Your task to perform on an android device: add a contact in the contacts app Image 0: 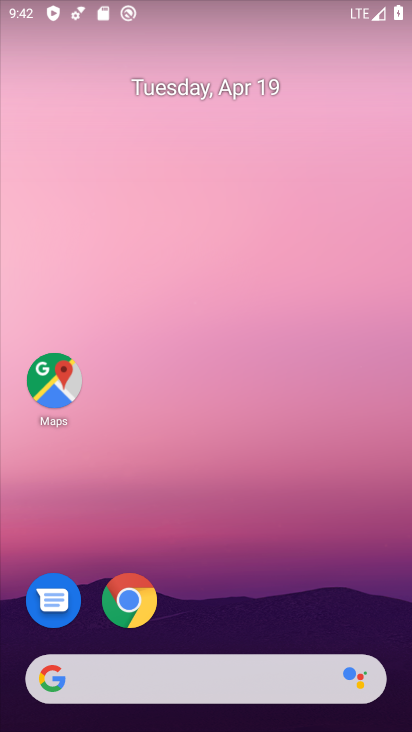
Step 0: drag from (244, 246) to (203, 26)
Your task to perform on an android device: add a contact in the contacts app Image 1: 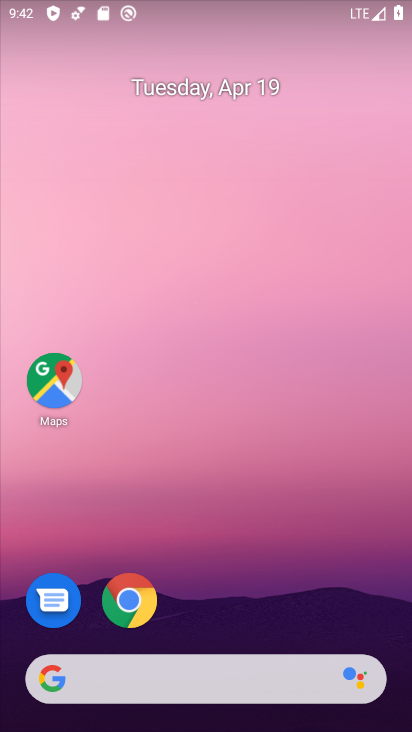
Step 1: drag from (375, 343) to (303, 64)
Your task to perform on an android device: add a contact in the contacts app Image 2: 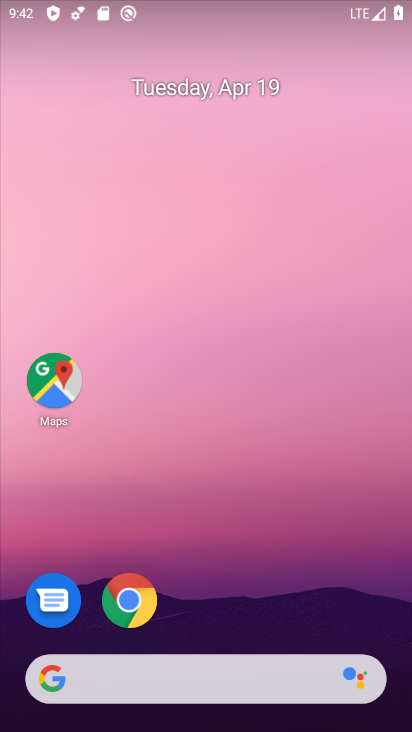
Step 2: drag from (282, 536) to (306, 81)
Your task to perform on an android device: add a contact in the contacts app Image 3: 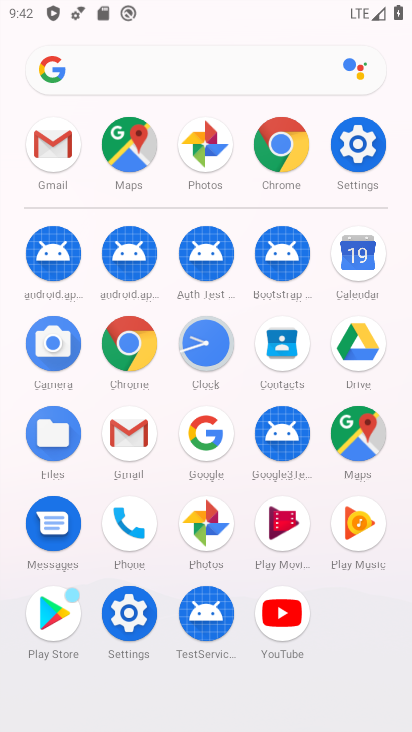
Step 3: click (287, 343)
Your task to perform on an android device: add a contact in the contacts app Image 4: 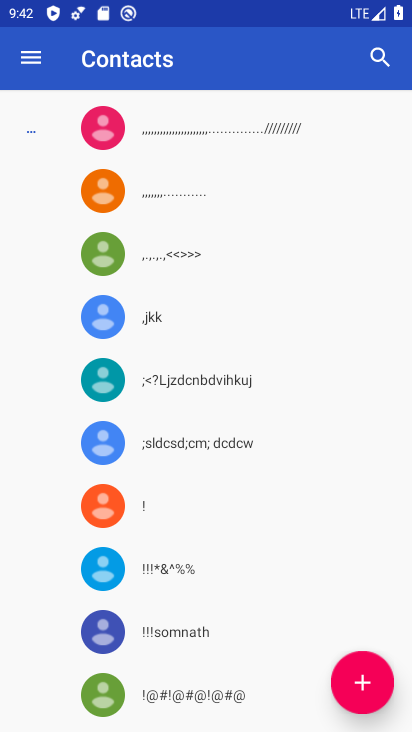
Step 4: click (366, 688)
Your task to perform on an android device: add a contact in the contacts app Image 5: 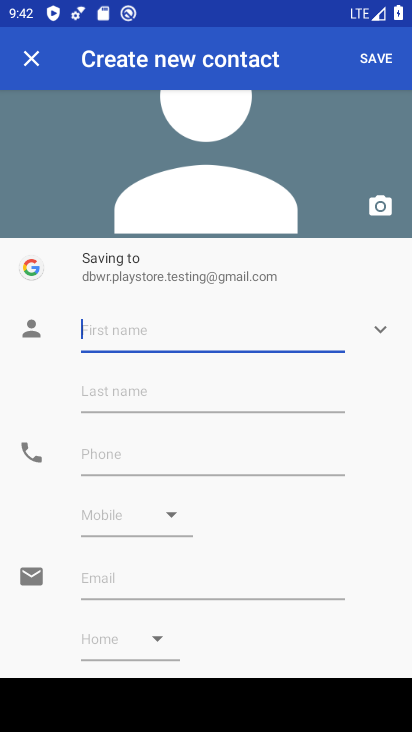
Step 5: click (152, 340)
Your task to perform on an android device: add a contact in the contacts app Image 6: 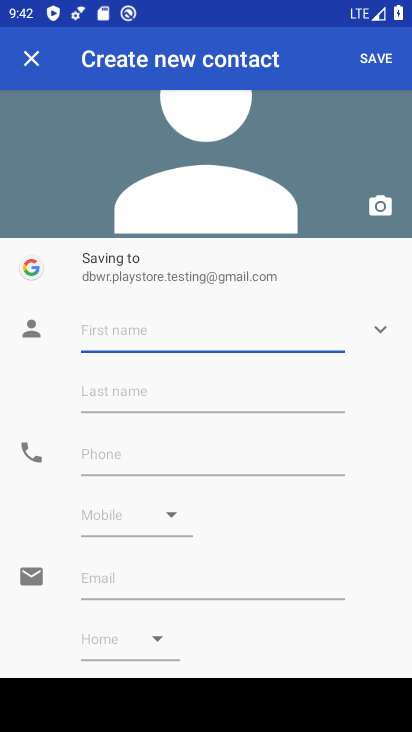
Step 6: type "jhgjhgjhg"
Your task to perform on an android device: add a contact in the contacts app Image 7: 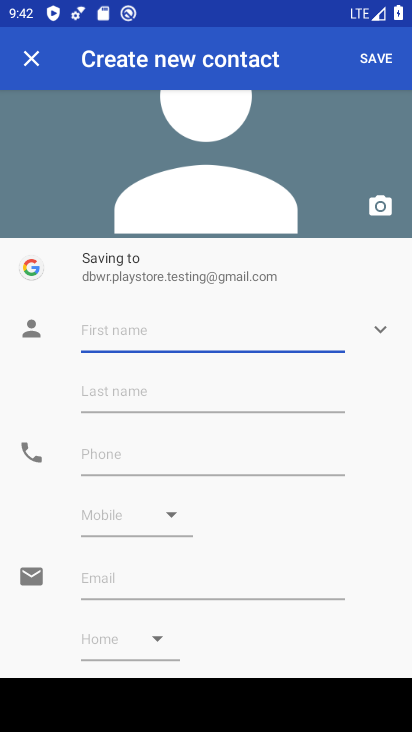
Step 7: click (256, 460)
Your task to perform on an android device: add a contact in the contacts app Image 8: 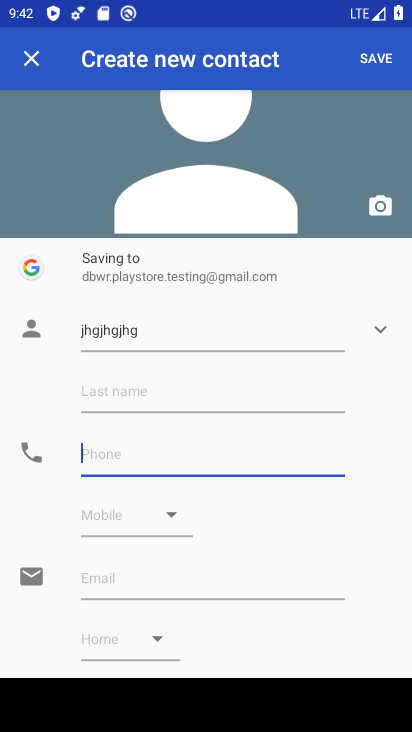
Step 8: type "9769767969"
Your task to perform on an android device: add a contact in the contacts app Image 9: 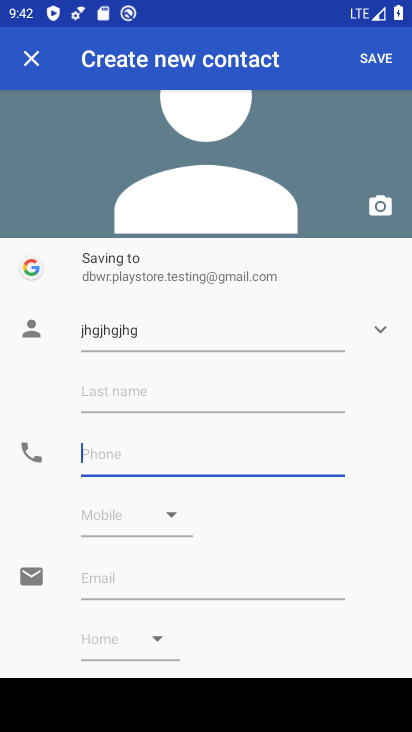
Step 9: click (394, 571)
Your task to perform on an android device: add a contact in the contacts app Image 10: 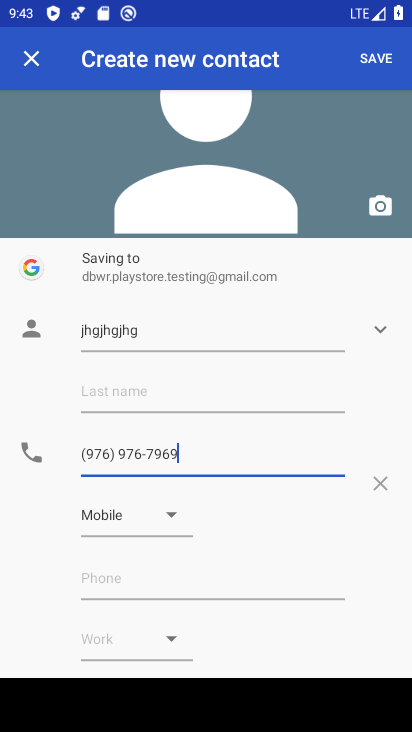
Step 10: click (375, 58)
Your task to perform on an android device: add a contact in the contacts app Image 11: 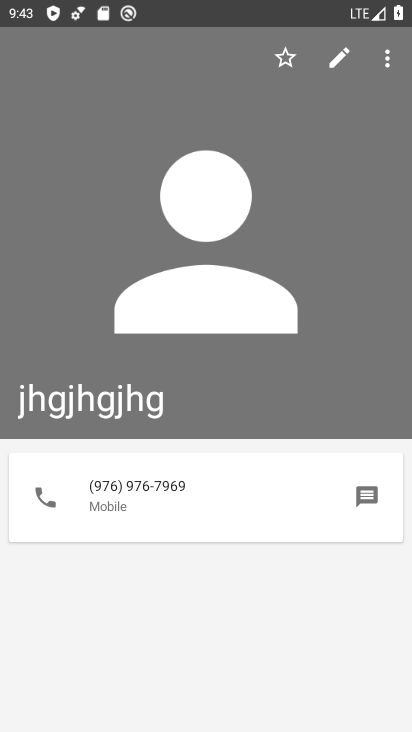
Step 11: task complete